Your task to perform on an android device: turn pop-ups off in chrome Image 0: 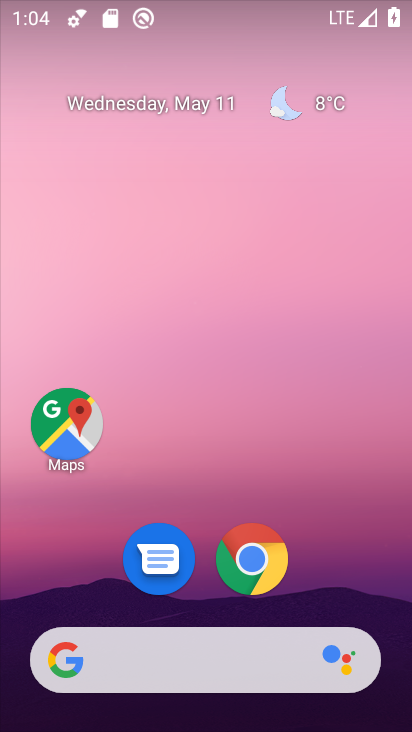
Step 0: click (262, 562)
Your task to perform on an android device: turn pop-ups off in chrome Image 1: 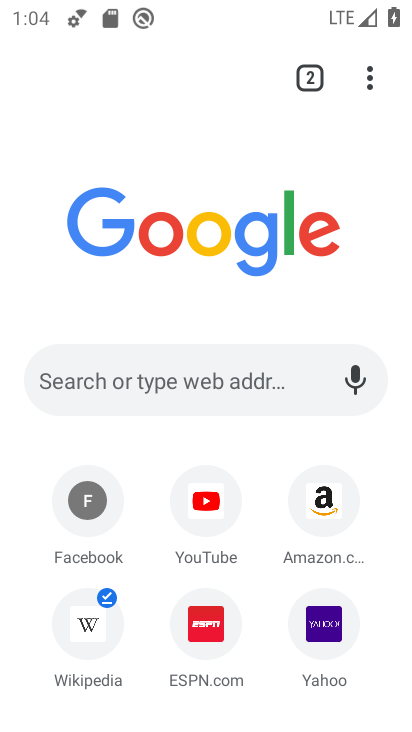
Step 1: click (370, 82)
Your task to perform on an android device: turn pop-ups off in chrome Image 2: 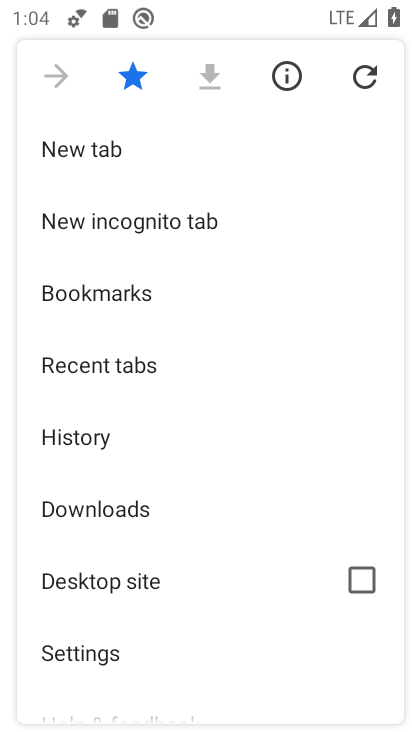
Step 2: click (91, 650)
Your task to perform on an android device: turn pop-ups off in chrome Image 3: 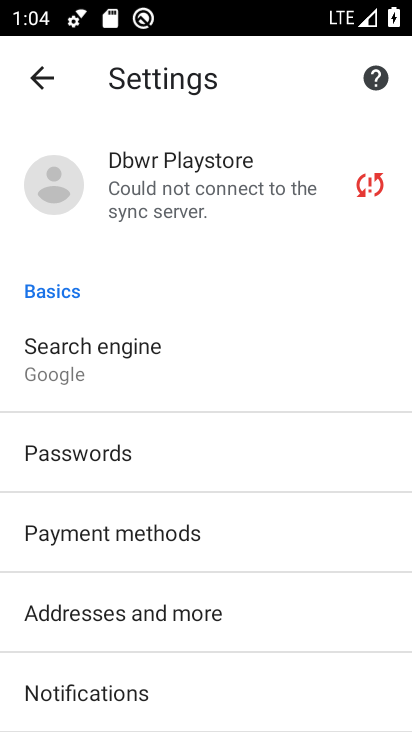
Step 3: drag from (160, 692) to (159, 191)
Your task to perform on an android device: turn pop-ups off in chrome Image 4: 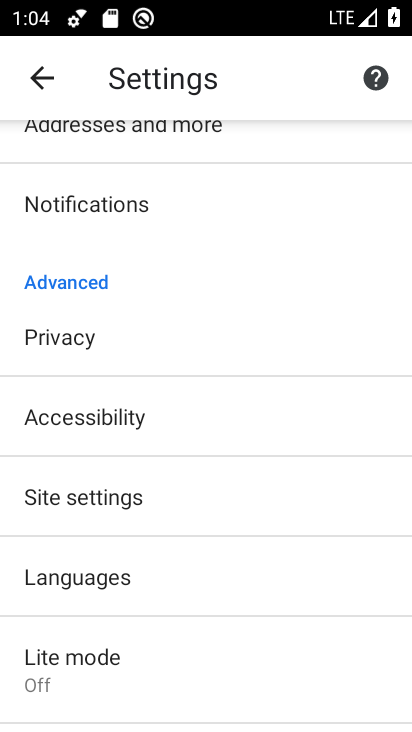
Step 4: drag from (135, 651) to (167, 306)
Your task to perform on an android device: turn pop-ups off in chrome Image 5: 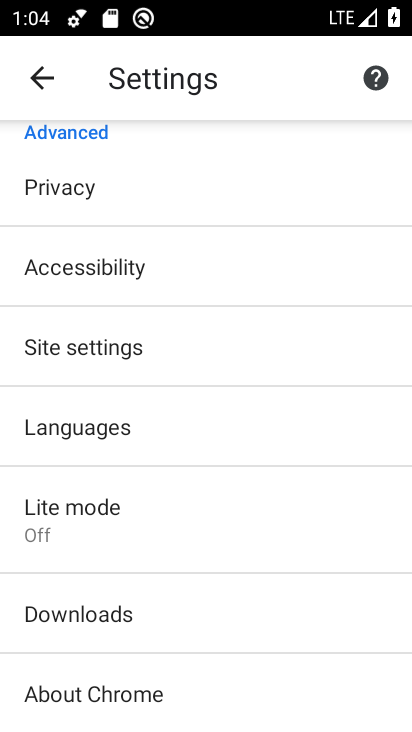
Step 5: click (77, 349)
Your task to perform on an android device: turn pop-ups off in chrome Image 6: 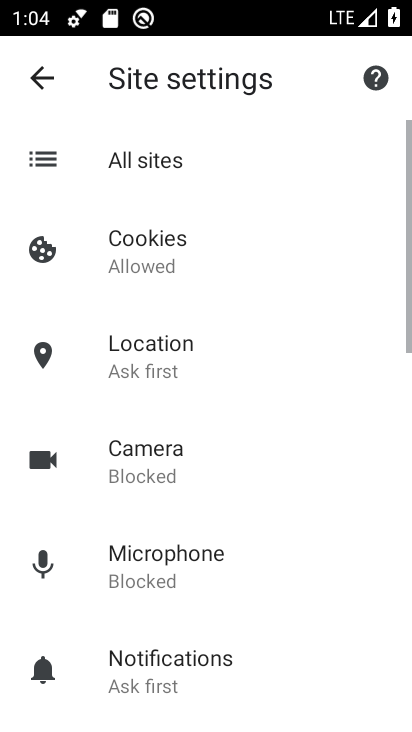
Step 6: drag from (236, 627) to (259, 179)
Your task to perform on an android device: turn pop-ups off in chrome Image 7: 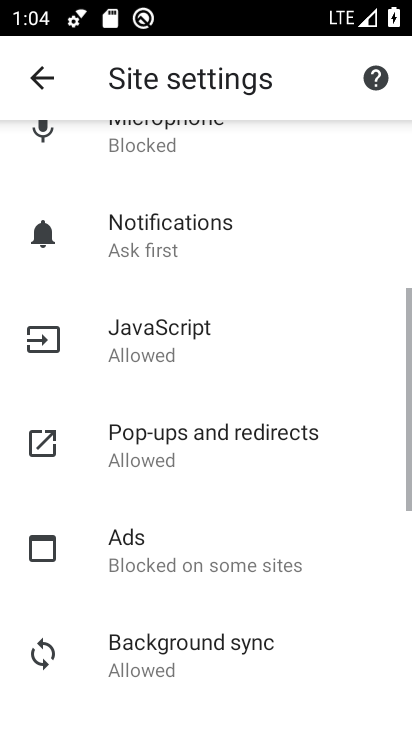
Step 7: click (211, 434)
Your task to perform on an android device: turn pop-ups off in chrome Image 8: 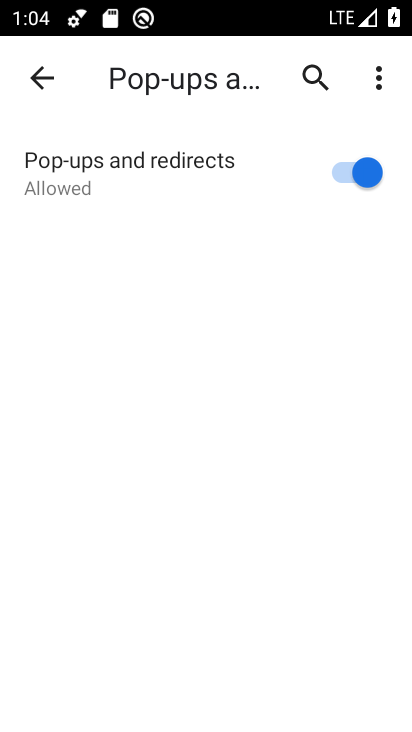
Step 8: click (337, 173)
Your task to perform on an android device: turn pop-ups off in chrome Image 9: 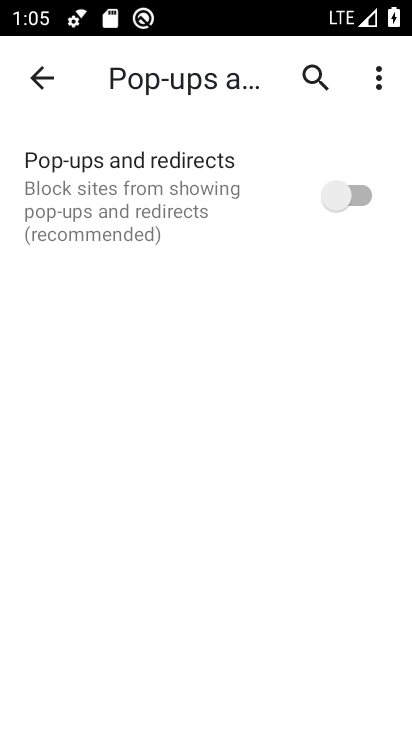
Step 9: task complete